Your task to perform on an android device: choose inbox layout in the gmail app Image 0: 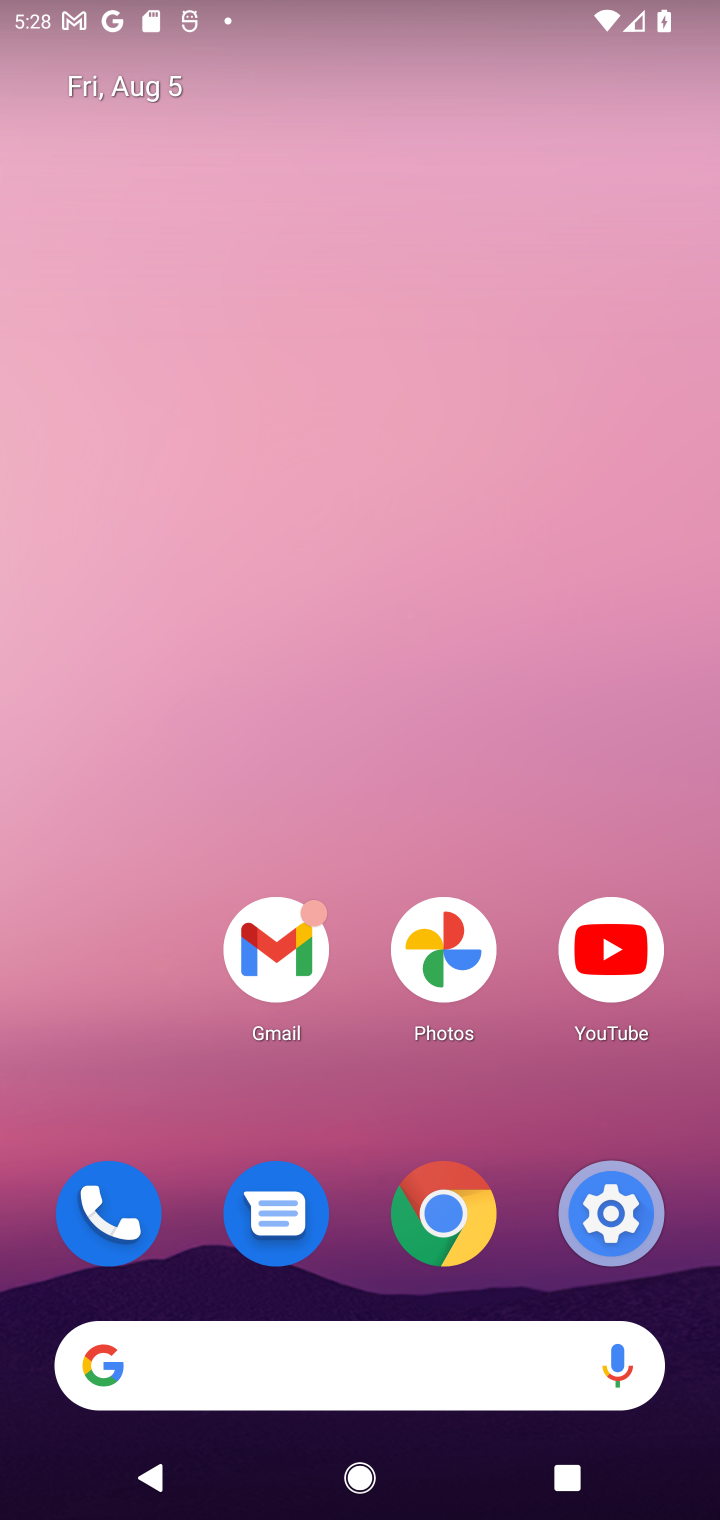
Step 0: click (280, 926)
Your task to perform on an android device: choose inbox layout in the gmail app Image 1: 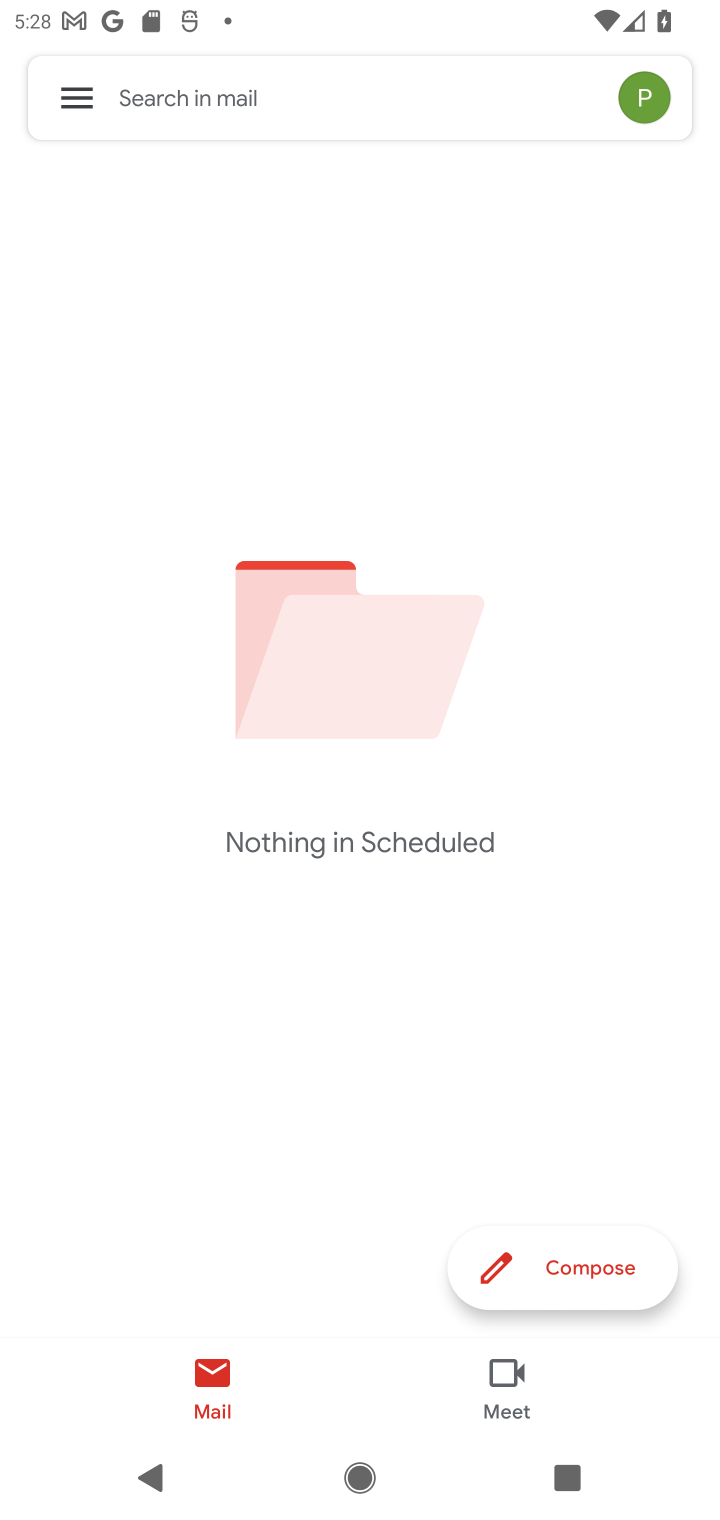
Step 1: click (75, 111)
Your task to perform on an android device: choose inbox layout in the gmail app Image 2: 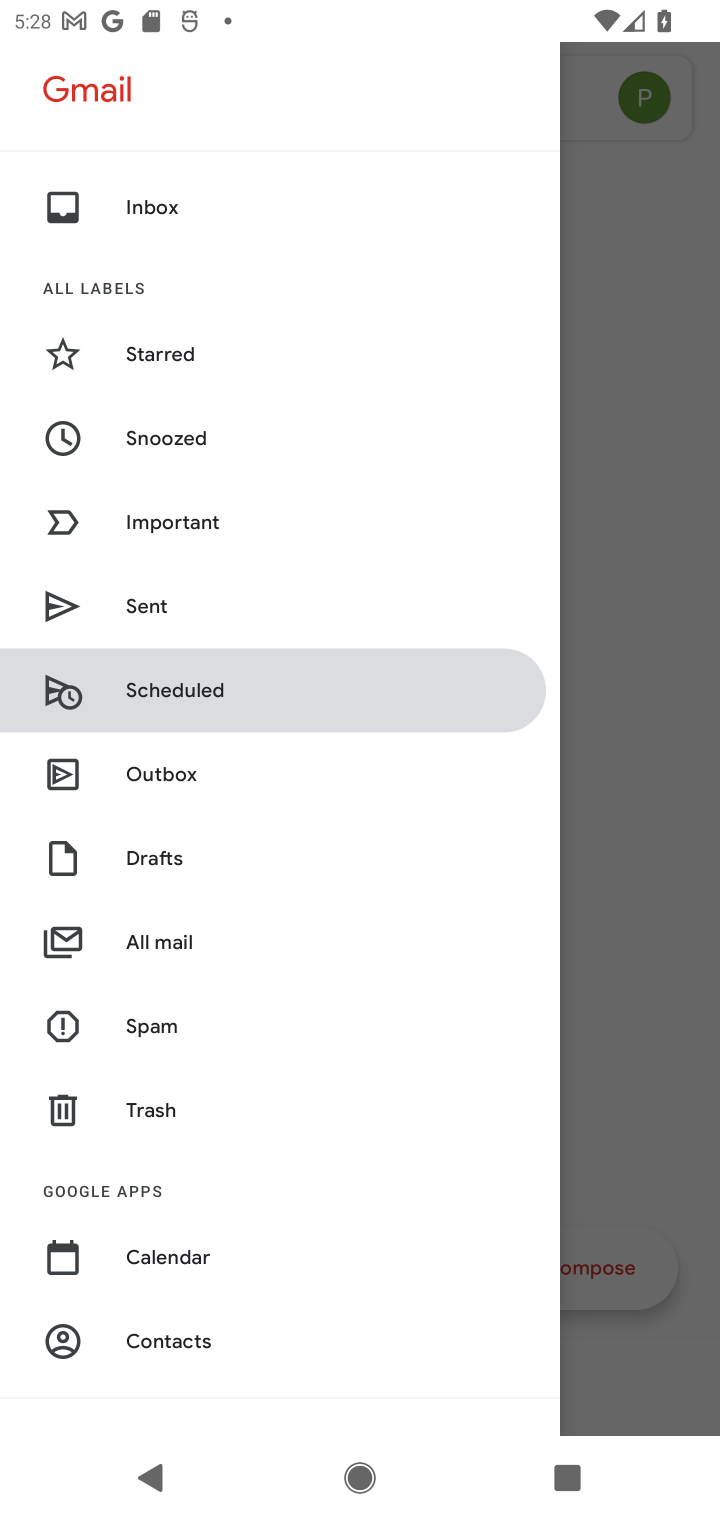
Step 2: click (187, 225)
Your task to perform on an android device: choose inbox layout in the gmail app Image 3: 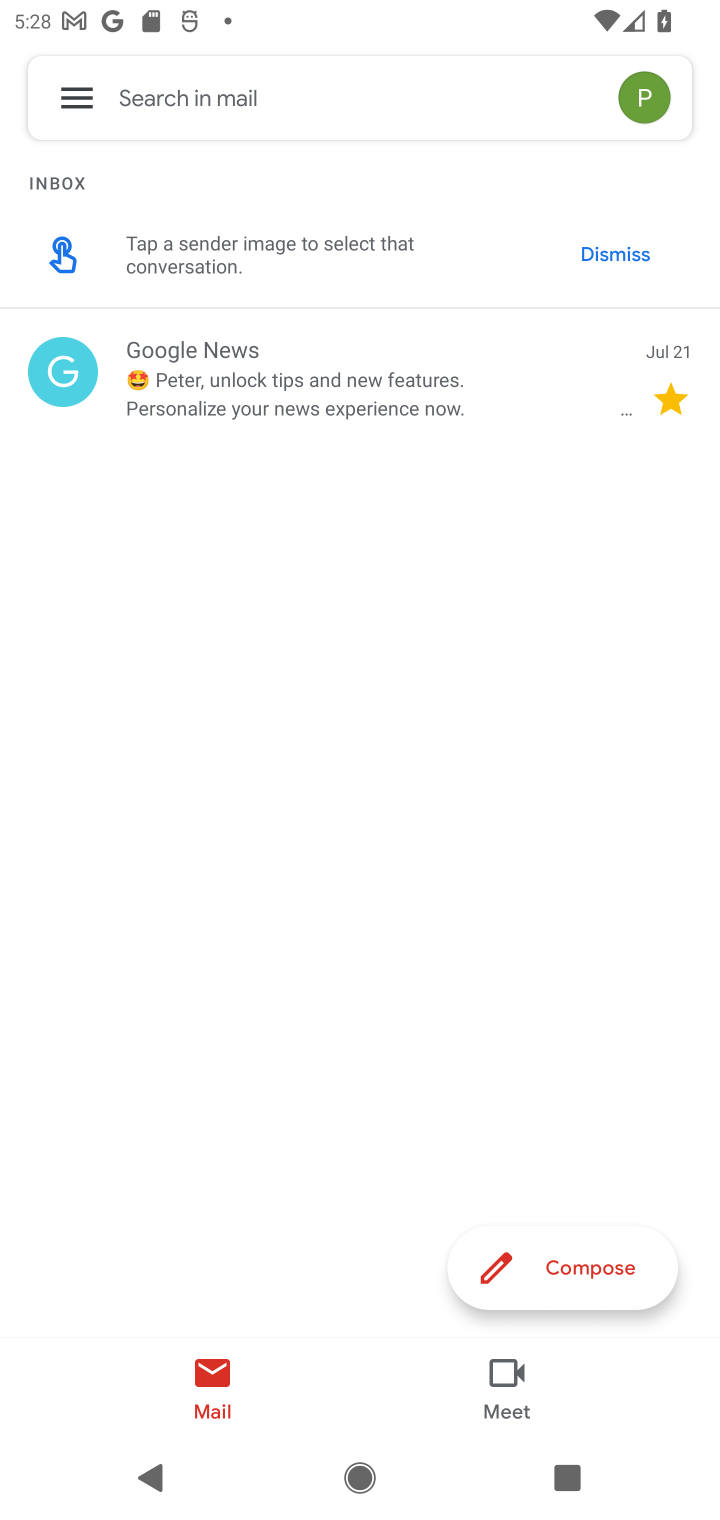
Step 3: task complete